Your task to perform on an android device: Open internet settings Image 0: 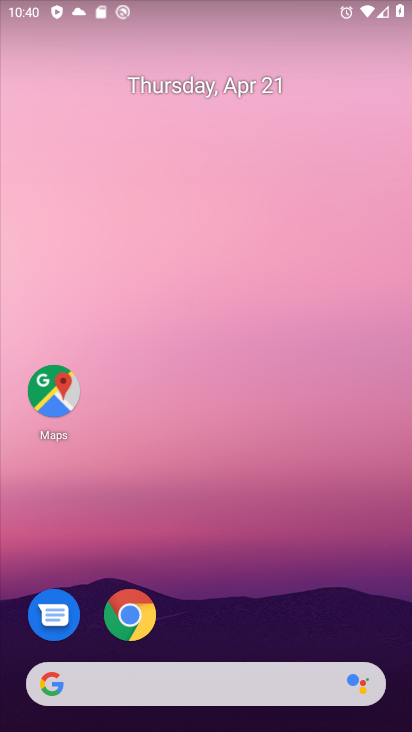
Step 0: drag from (235, 635) to (277, 161)
Your task to perform on an android device: Open internet settings Image 1: 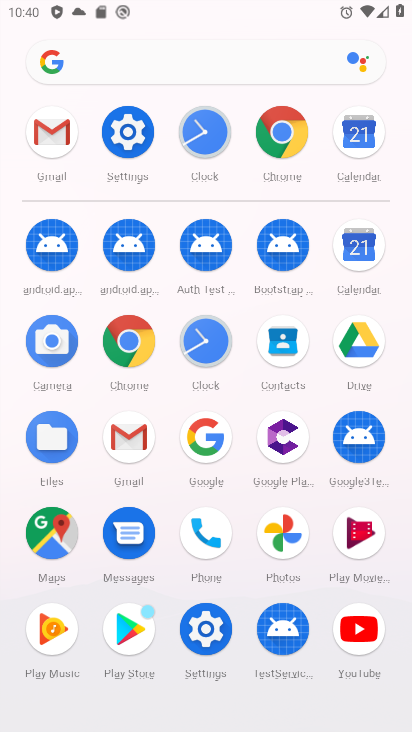
Step 1: click (124, 124)
Your task to perform on an android device: Open internet settings Image 2: 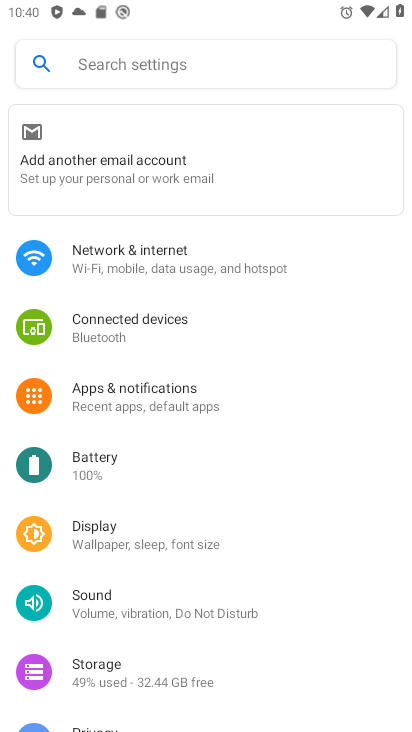
Step 2: click (196, 256)
Your task to perform on an android device: Open internet settings Image 3: 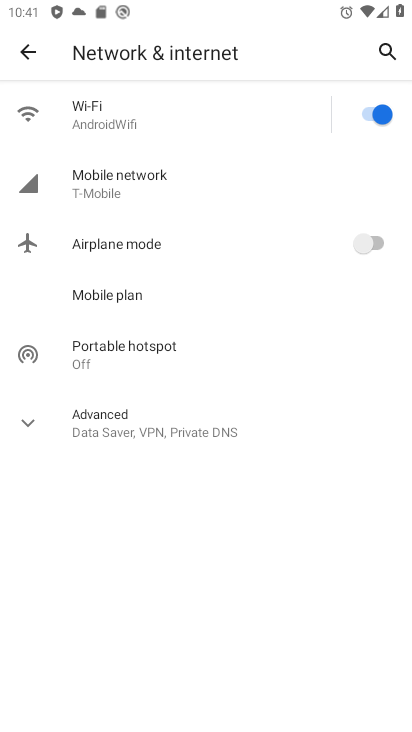
Step 3: click (29, 418)
Your task to perform on an android device: Open internet settings Image 4: 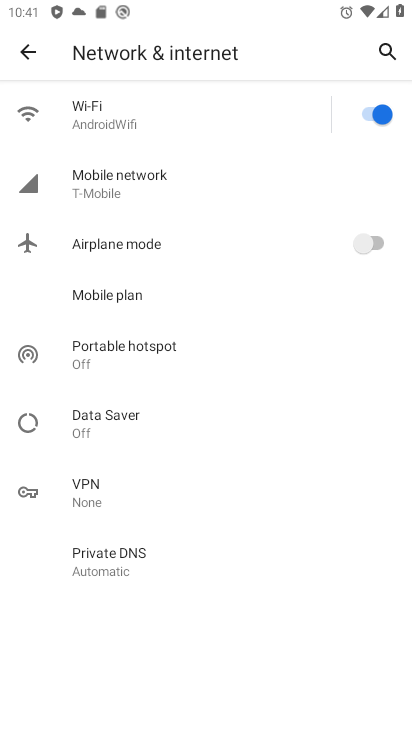
Step 4: task complete